Your task to perform on an android device: Open wifi settings Image 0: 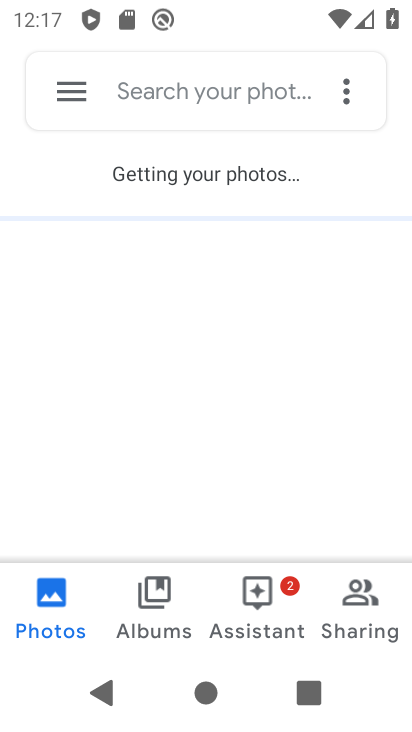
Step 0: press home button
Your task to perform on an android device: Open wifi settings Image 1: 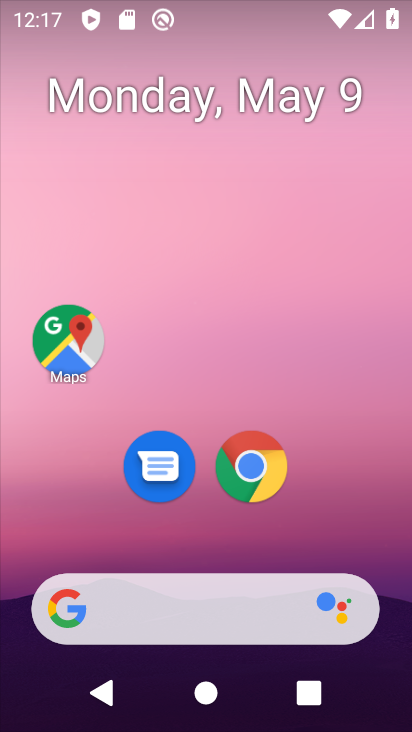
Step 1: drag from (368, 549) to (272, 24)
Your task to perform on an android device: Open wifi settings Image 2: 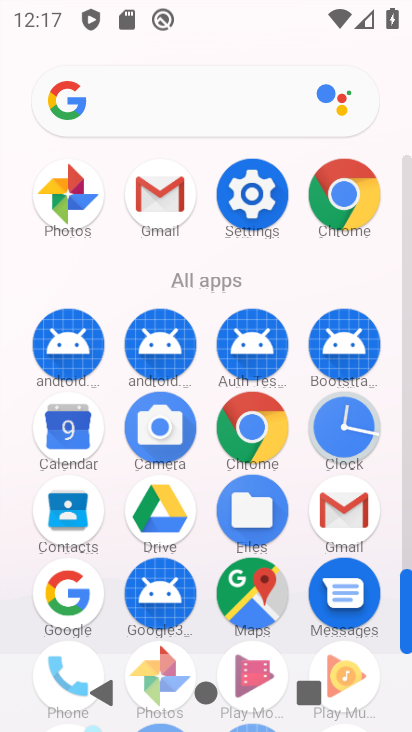
Step 2: click (255, 183)
Your task to perform on an android device: Open wifi settings Image 3: 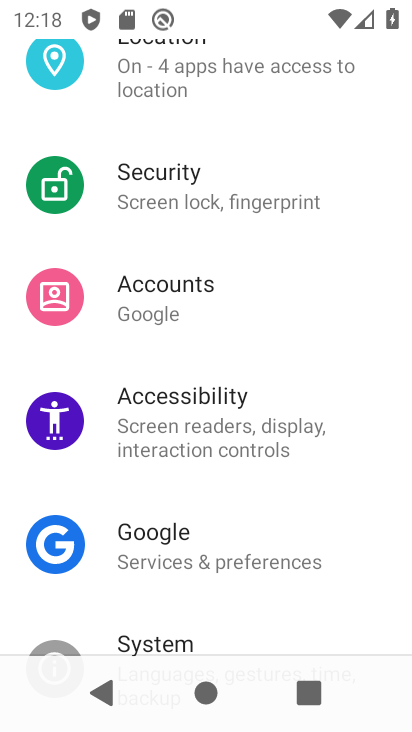
Step 3: drag from (239, 132) to (302, 723)
Your task to perform on an android device: Open wifi settings Image 4: 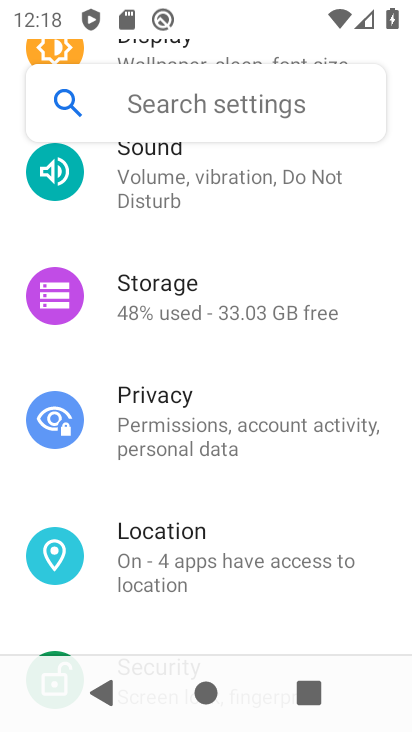
Step 4: drag from (248, 234) to (250, 606)
Your task to perform on an android device: Open wifi settings Image 5: 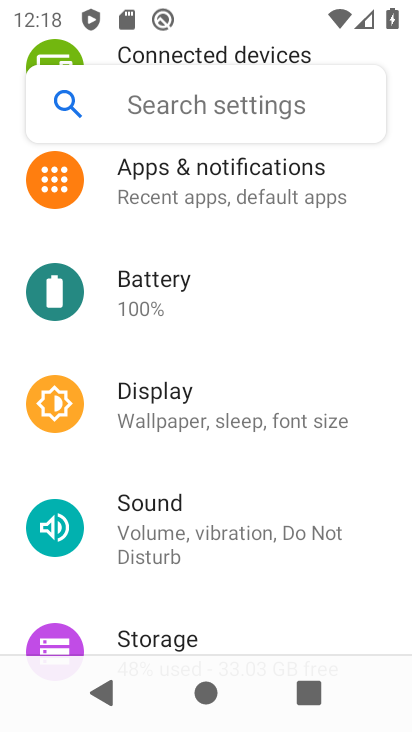
Step 5: drag from (230, 246) to (295, 669)
Your task to perform on an android device: Open wifi settings Image 6: 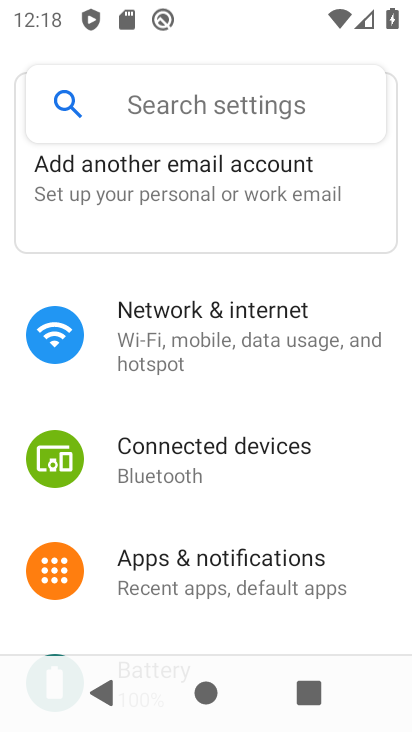
Step 6: click (278, 336)
Your task to perform on an android device: Open wifi settings Image 7: 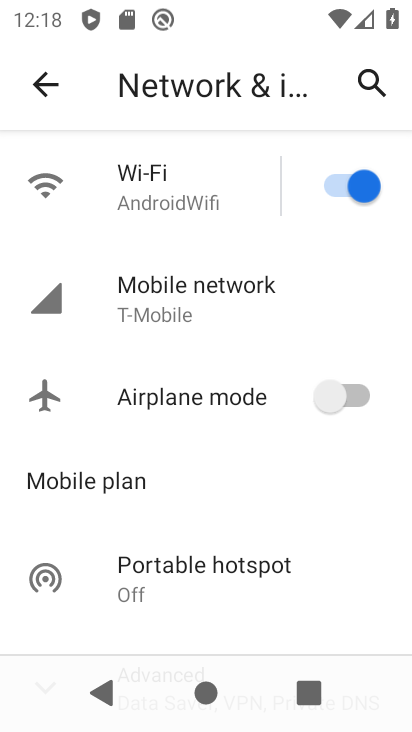
Step 7: click (131, 199)
Your task to perform on an android device: Open wifi settings Image 8: 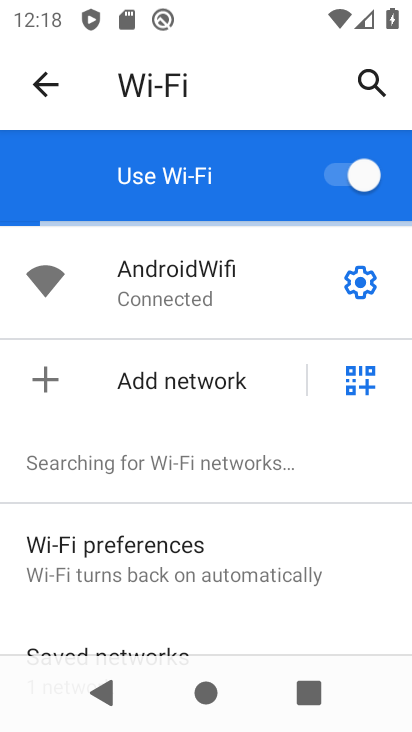
Step 8: task complete